Your task to perform on an android device: Is it going to rain today? Image 0: 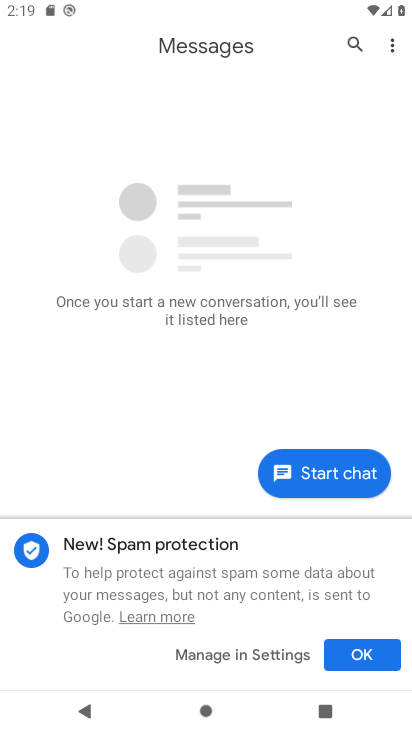
Step 0: drag from (208, 623) to (204, 135)
Your task to perform on an android device: Is it going to rain today? Image 1: 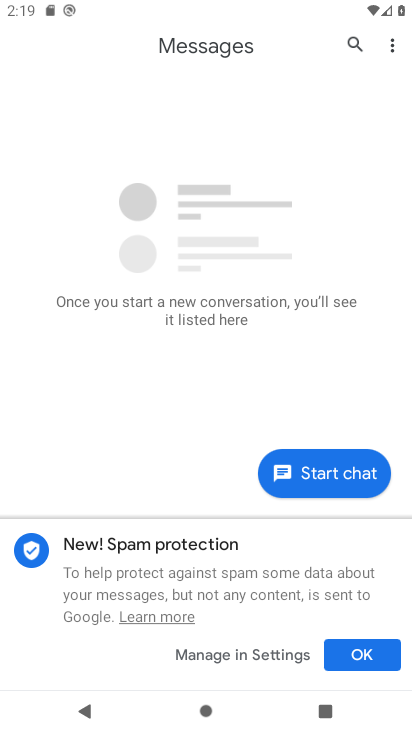
Step 1: press home button
Your task to perform on an android device: Is it going to rain today? Image 2: 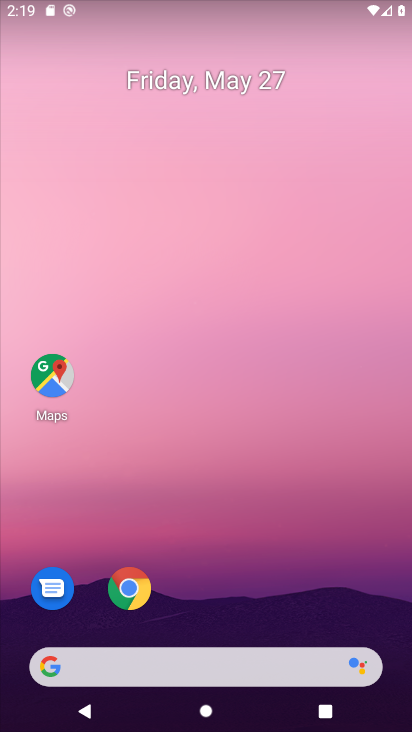
Step 2: click (162, 658)
Your task to perform on an android device: Is it going to rain today? Image 3: 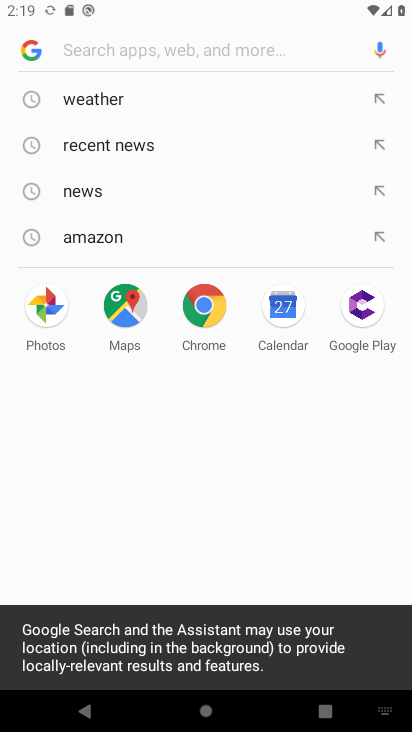
Step 3: type "is it going to rain today"
Your task to perform on an android device: Is it going to rain today? Image 4: 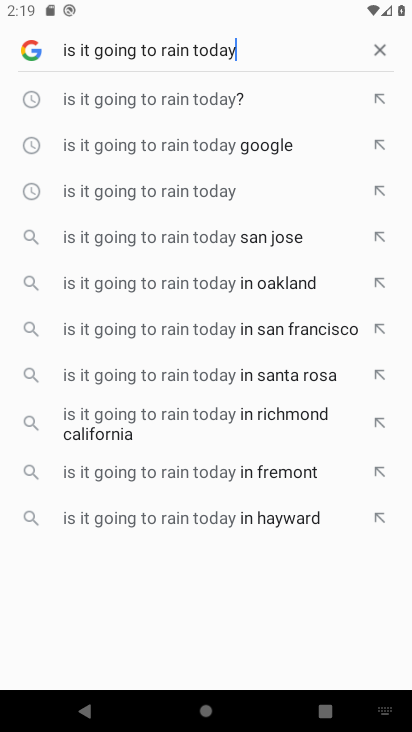
Step 4: click (90, 99)
Your task to perform on an android device: Is it going to rain today? Image 5: 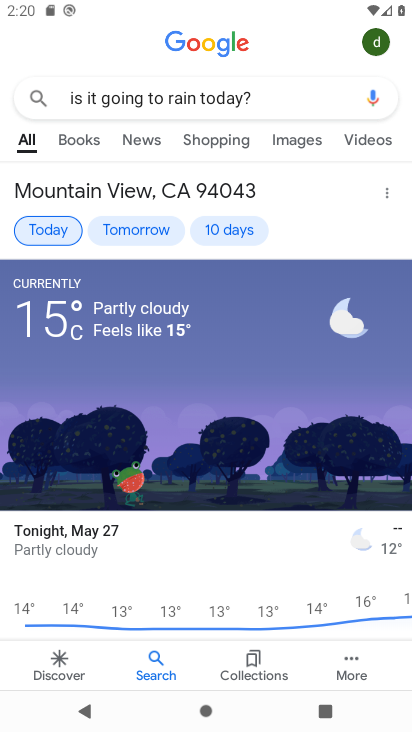
Step 5: task complete